Your task to perform on an android device: What's the weather? Image 0: 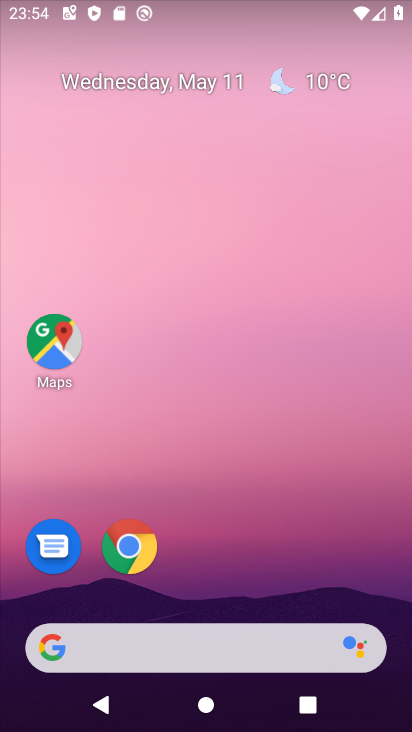
Step 0: click (129, 548)
Your task to perform on an android device: What's the weather? Image 1: 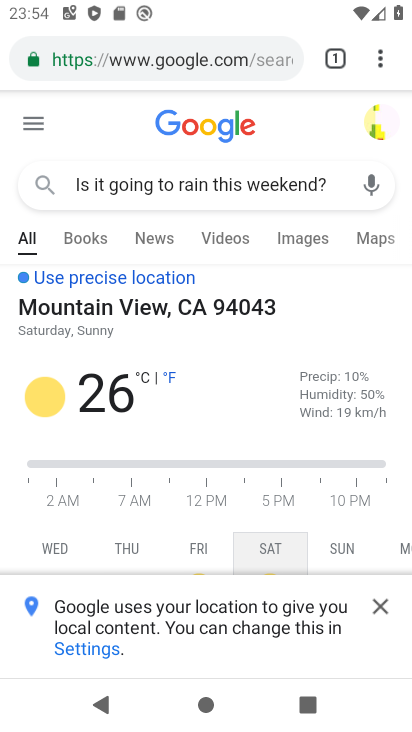
Step 1: click (127, 66)
Your task to perform on an android device: What's the weather? Image 2: 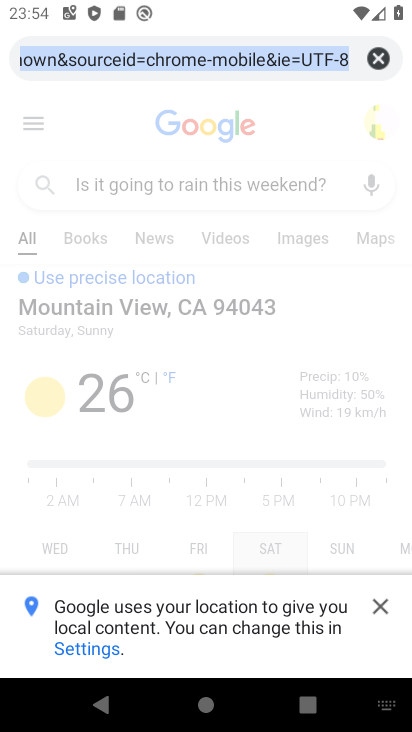
Step 2: type "weather"
Your task to perform on an android device: What's the weather? Image 3: 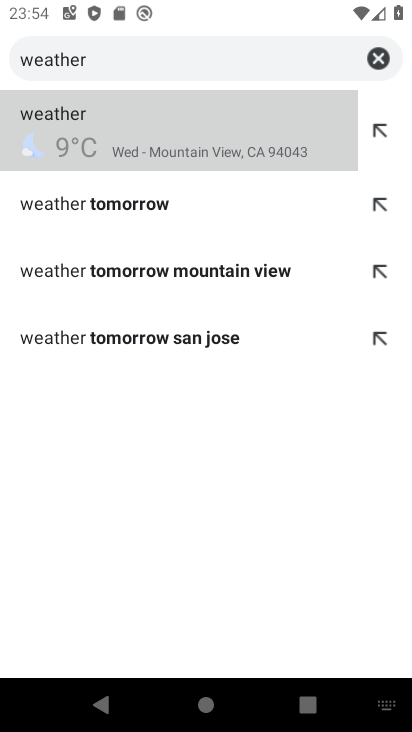
Step 3: click (191, 129)
Your task to perform on an android device: What's the weather? Image 4: 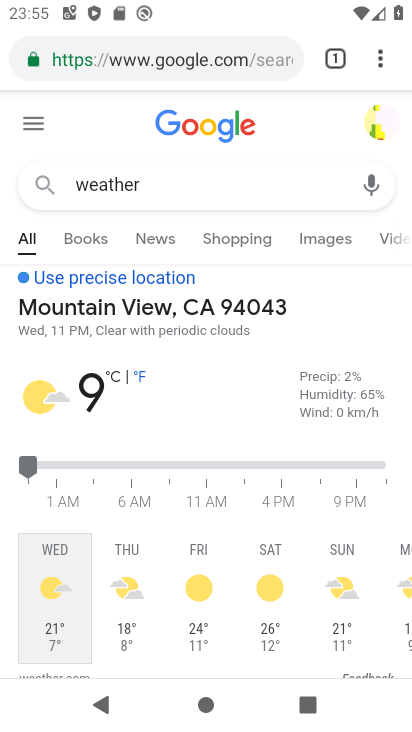
Step 4: task complete